Your task to perform on an android device: What's the weather going to be tomorrow? Image 0: 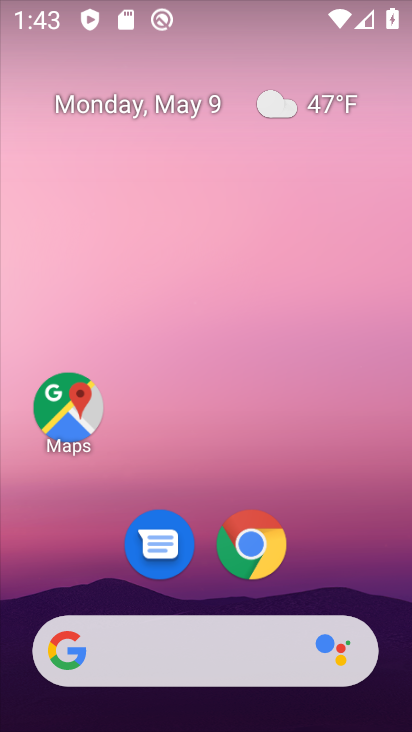
Step 0: click (316, 115)
Your task to perform on an android device: What's the weather going to be tomorrow? Image 1: 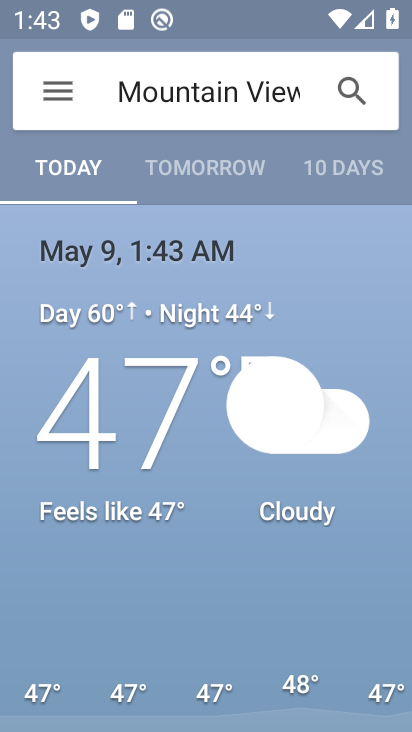
Step 1: drag from (269, 164) to (191, 164)
Your task to perform on an android device: What's the weather going to be tomorrow? Image 2: 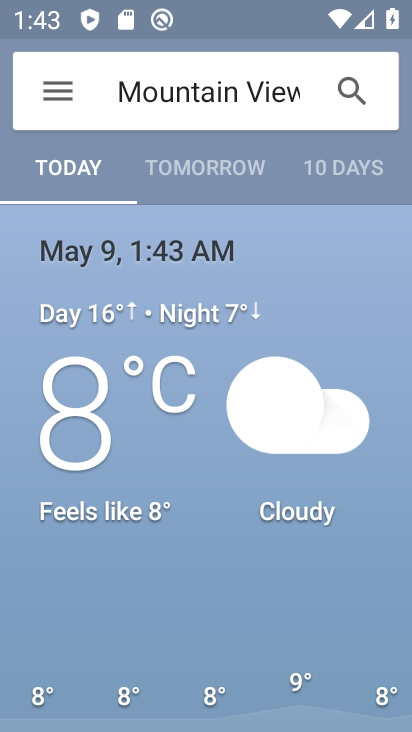
Step 2: click (241, 181)
Your task to perform on an android device: What's the weather going to be tomorrow? Image 3: 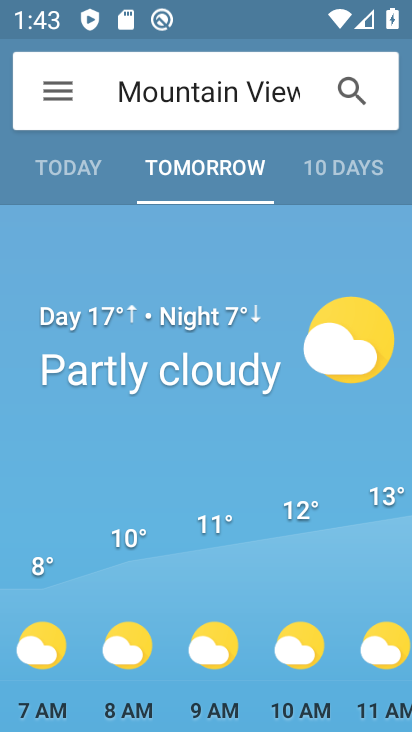
Step 3: task complete